Your task to perform on an android device: uninstall "Skype" Image 0: 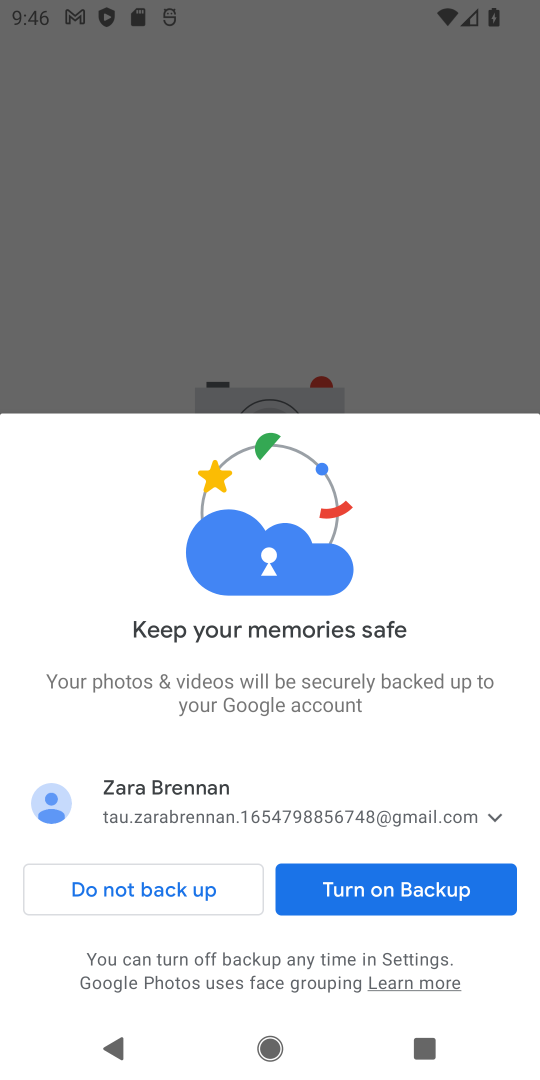
Step 0: press back button
Your task to perform on an android device: uninstall "Skype" Image 1: 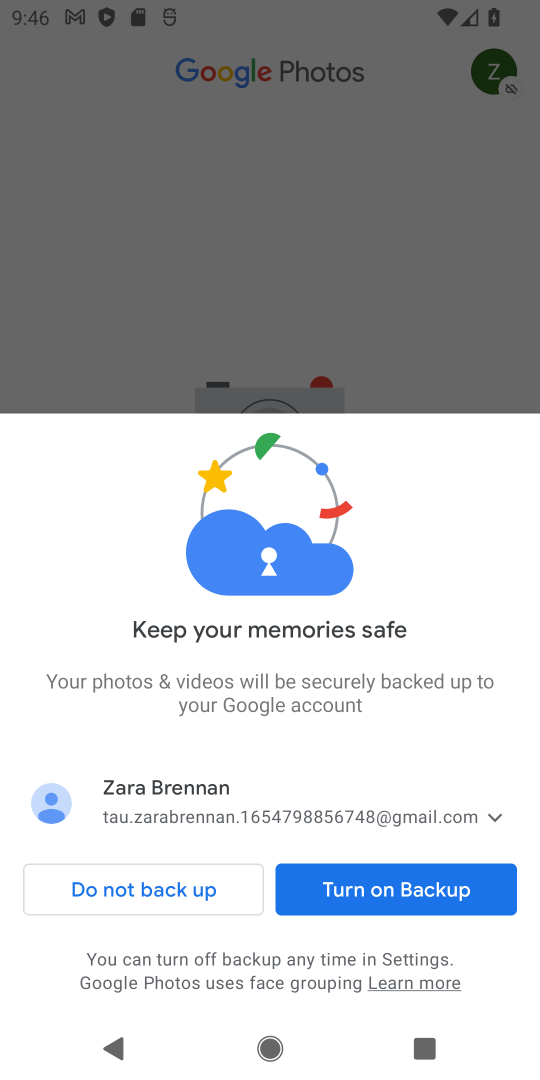
Step 1: press home button
Your task to perform on an android device: uninstall "Skype" Image 2: 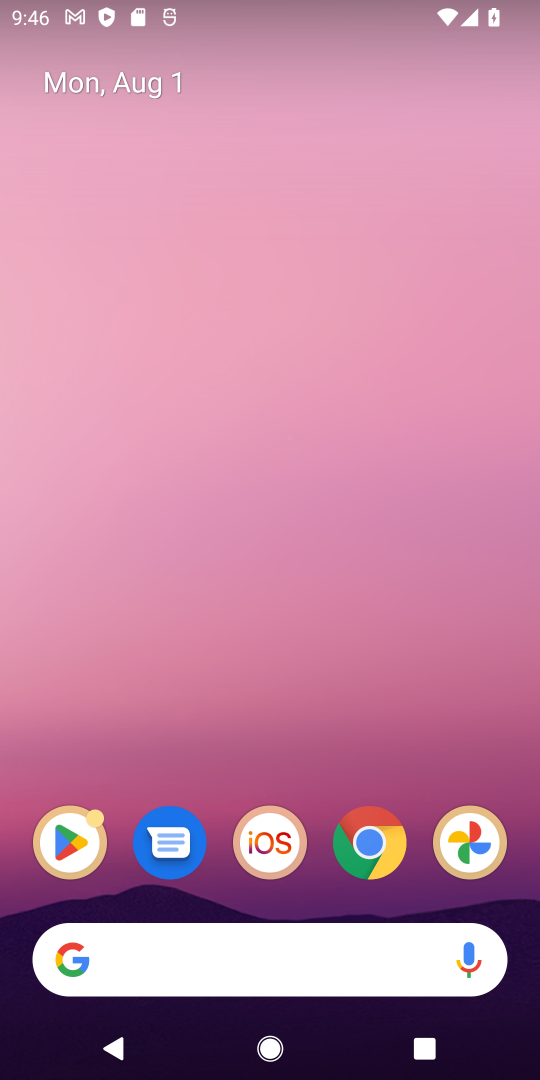
Step 2: click (62, 842)
Your task to perform on an android device: uninstall "Skype" Image 3: 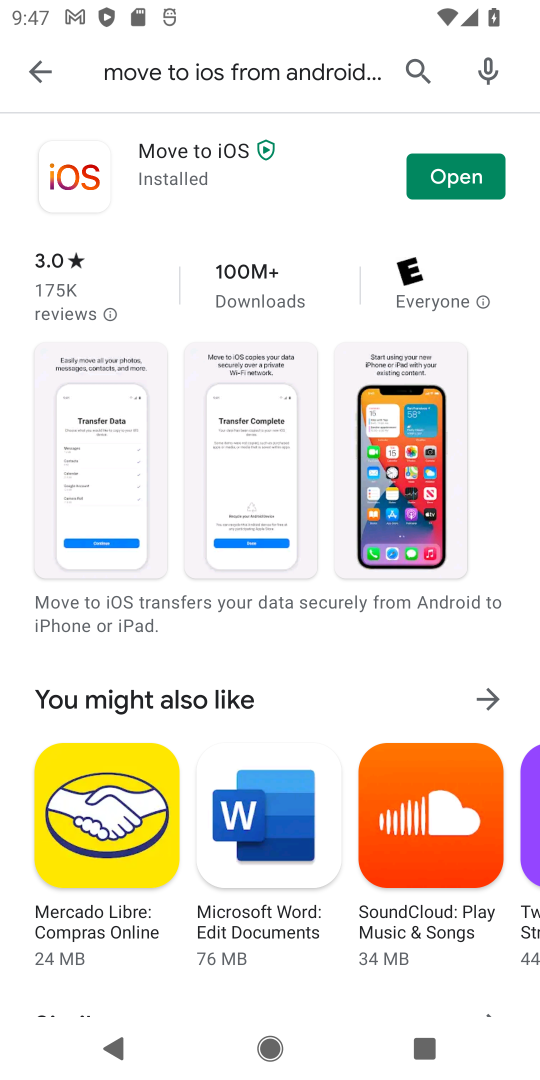
Step 3: click (418, 68)
Your task to perform on an android device: uninstall "Skype" Image 4: 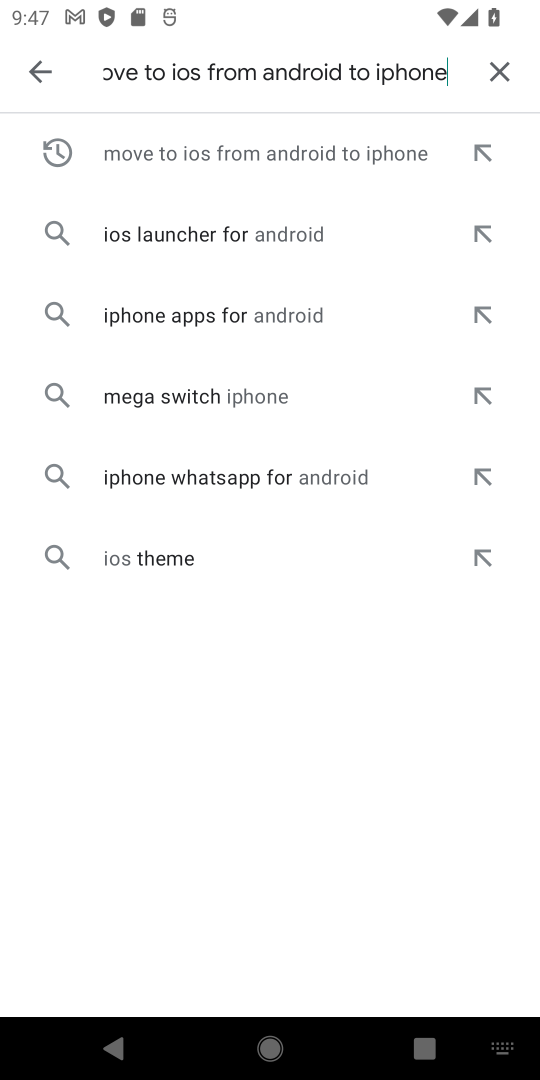
Step 4: click (491, 75)
Your task to perform on an android device: uninstall "Skype" Image 5: 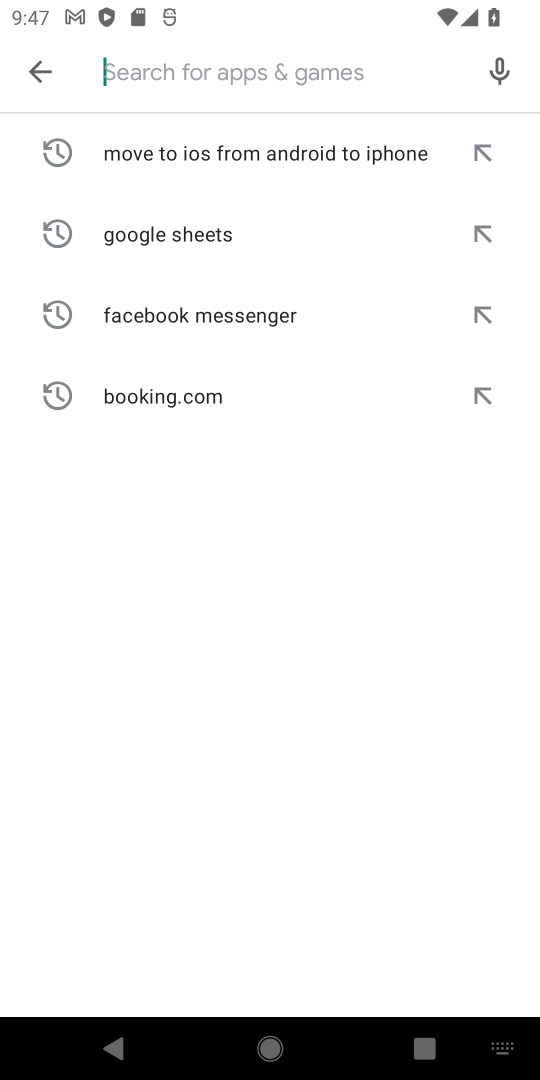
Step 5: click (168, 69)
Your task to perform on an android device: uninstall "Skype" Image 6: 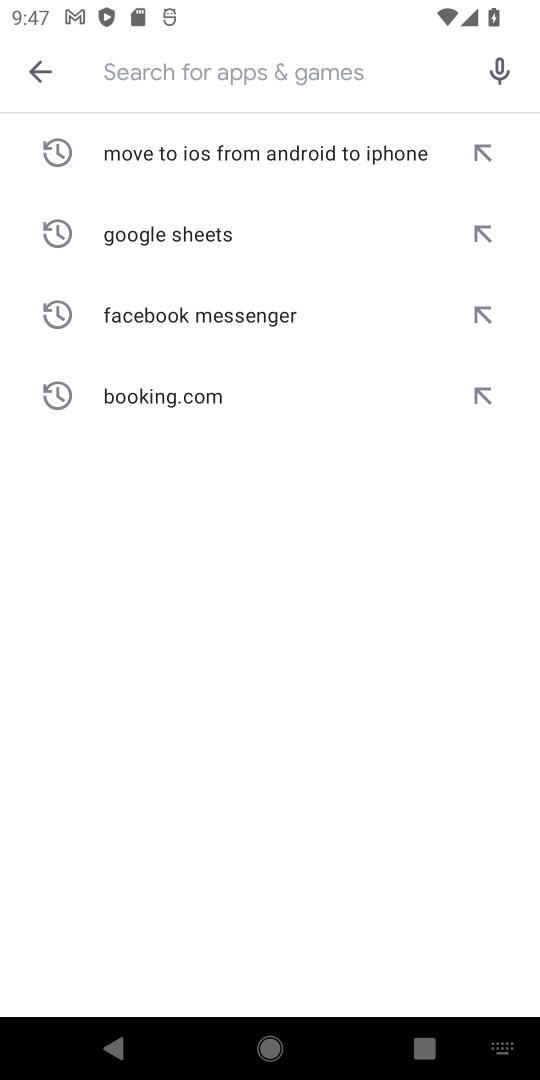
Step 6: type "skype"
Your task to perform on an android device: uninstall "Skype" Image 7: 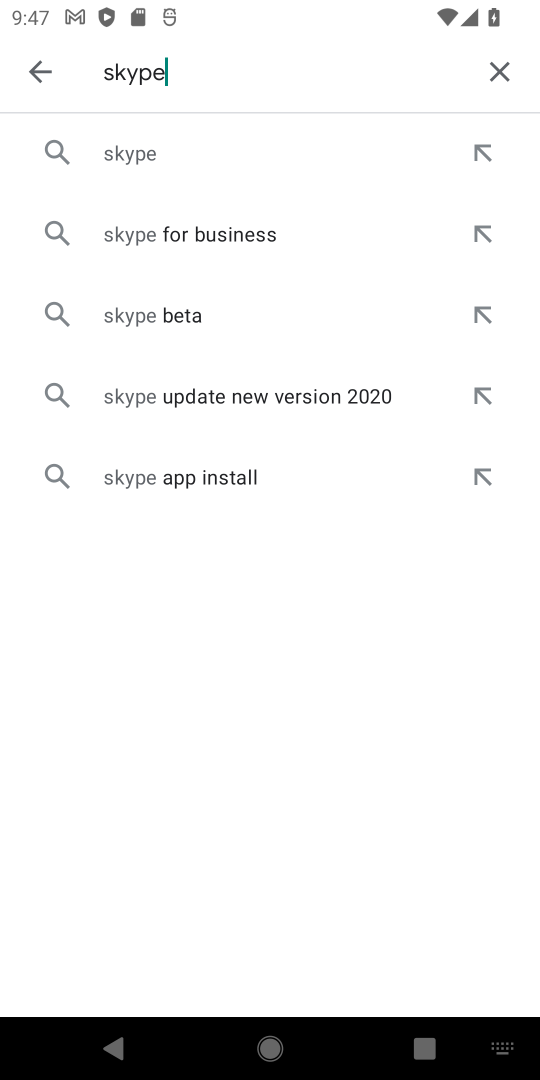
Step 7: click (133, 151)
Your task to perform on an android device: uninstall "Skype" Image 8: 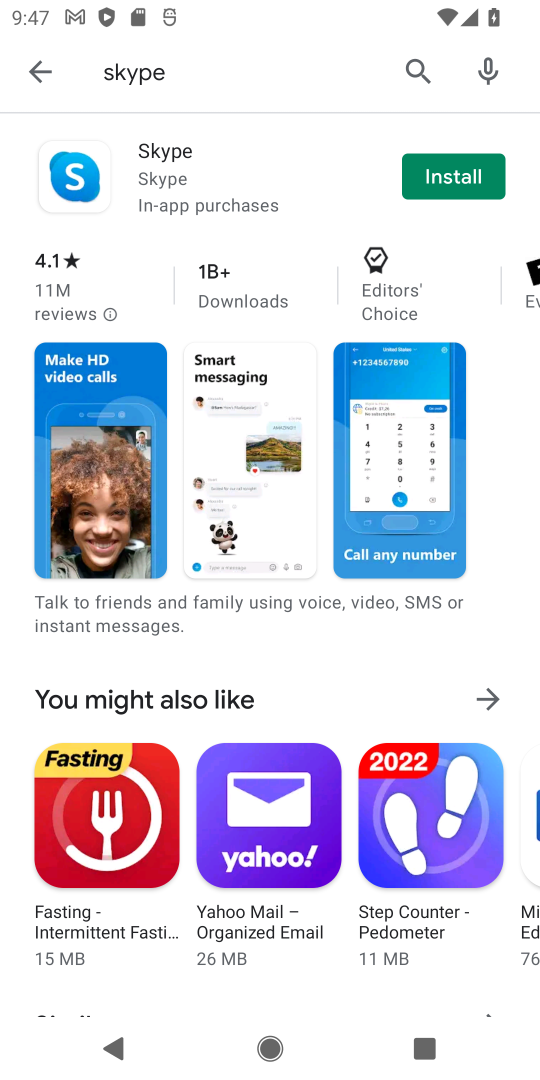
Step 8: task complete